Your task to perform on an android device: What is the recent news? Image 0: 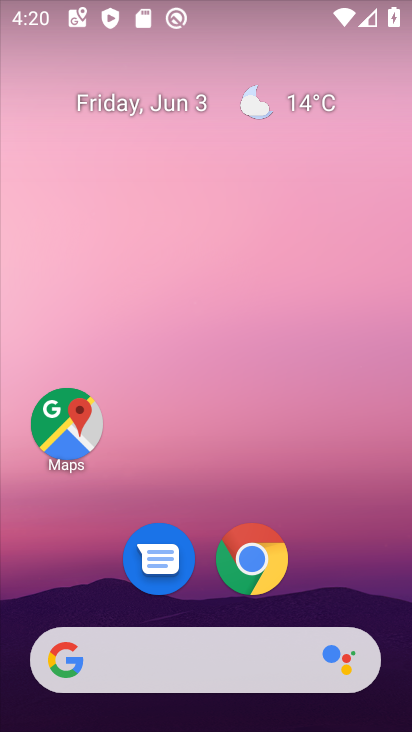
Step 0: click (254, 548)
Your task to perform on an android device: What is the recent news? Image 1: 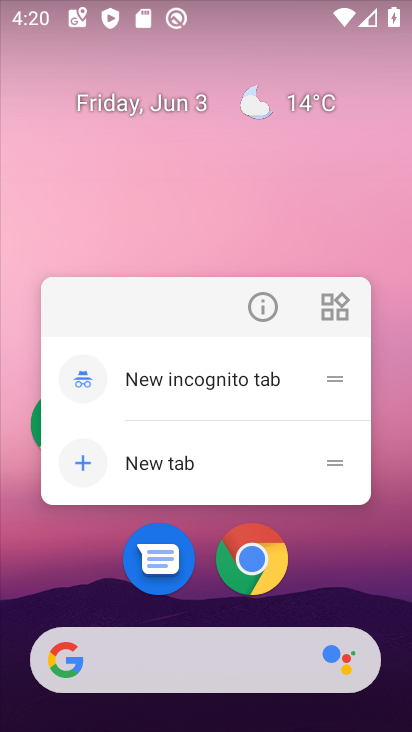
Step 1: click (254, 552)
Your task to perform on an android device: What is the recent news? Image 2: 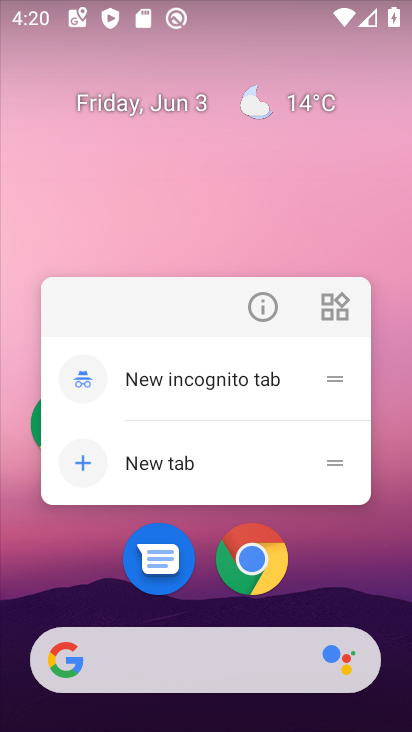
Step 2: click (254, 552)
Your task to perform on an android device: What is the recent news? Image 3: 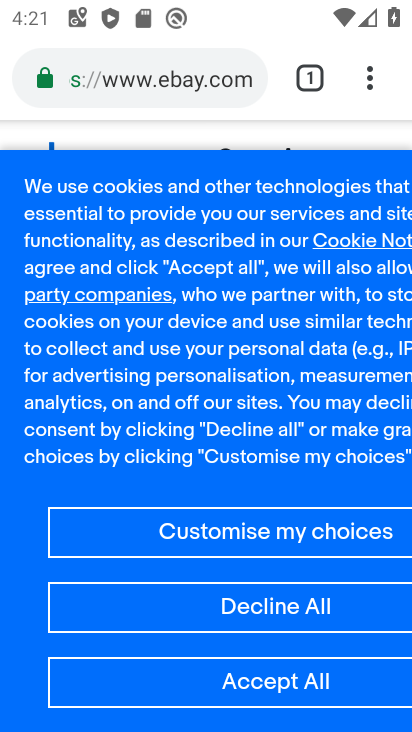
Step 3: click (153, 84)
Your task to perform on an android device: What is the recent news? Image 4: 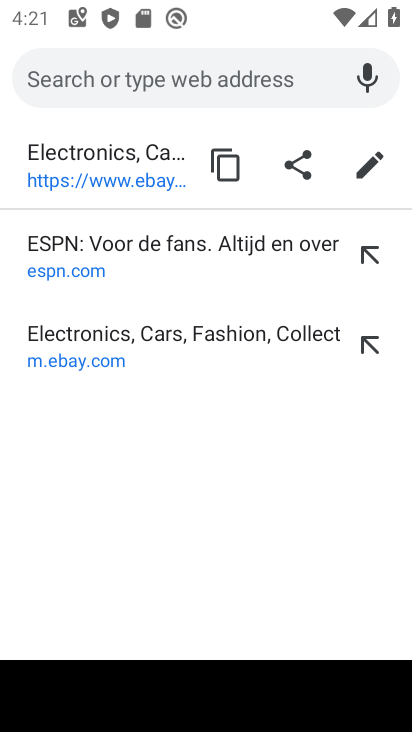
Step 4: type "What is the recent news?"
Your task to perform on an android device: What is the recent news? Image 5: 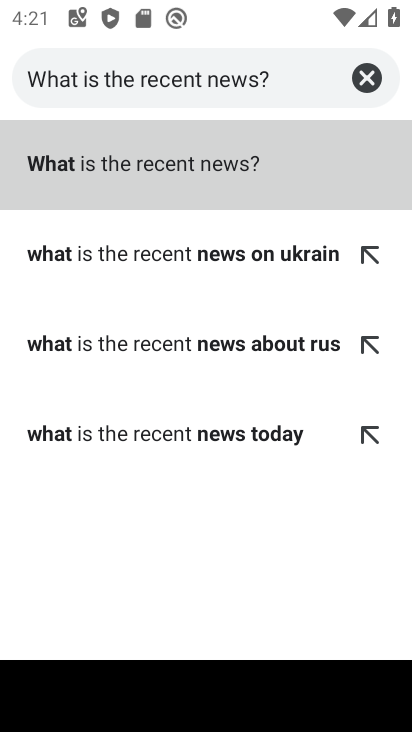
Step 5: click (102, 163)
Your task to perform on an android device: What is the recent news? Image 6: 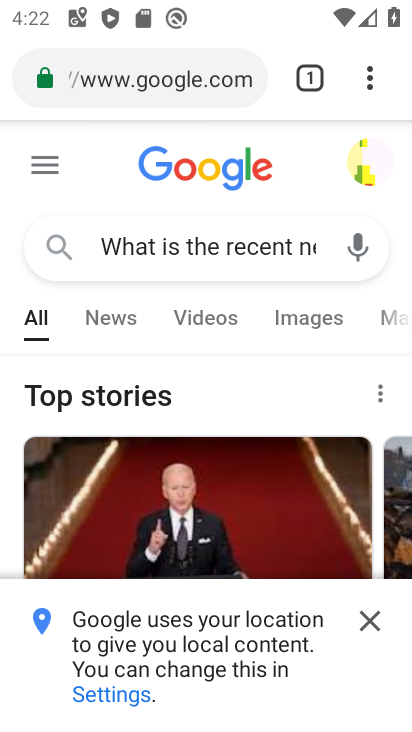
Step 6: task complete